Your task to perform on an android device: Go to Google maps Image 0: 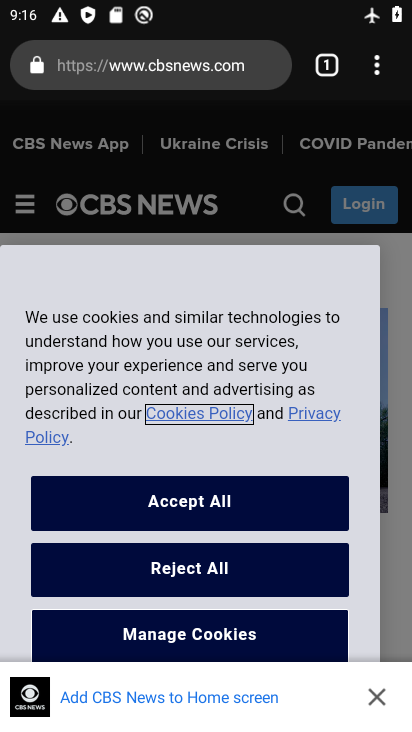
Step 0: press home button
Your task to perform on an android device: Go to Google maps Image 1: 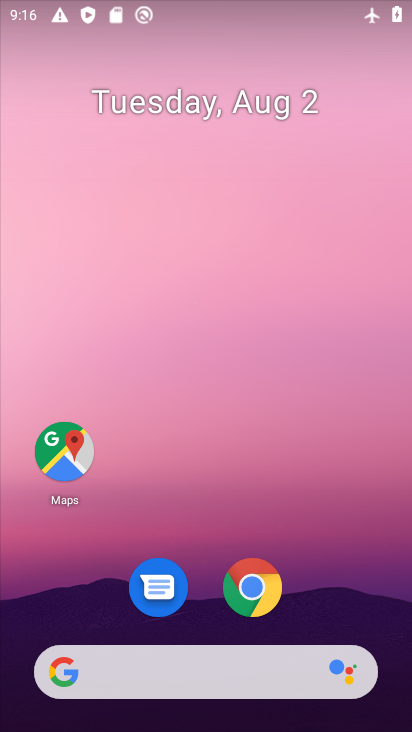
Step 1: click (63, 453)
Your task to perform on an android device: Go to Google maps Image 2: 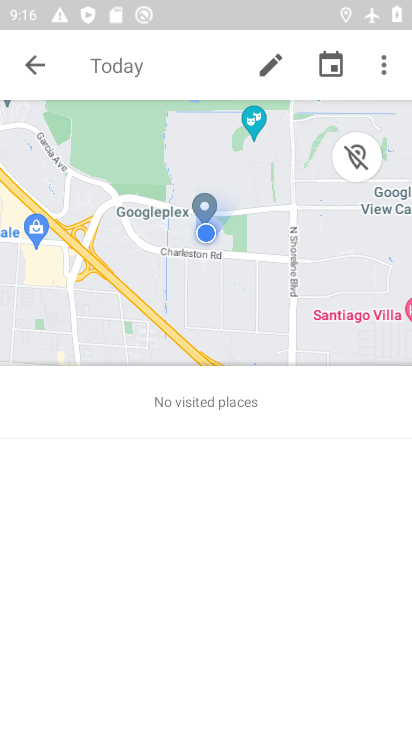
Step 2: task complete